Your task to perform on an android device: find photos in the google photos app Image 0: 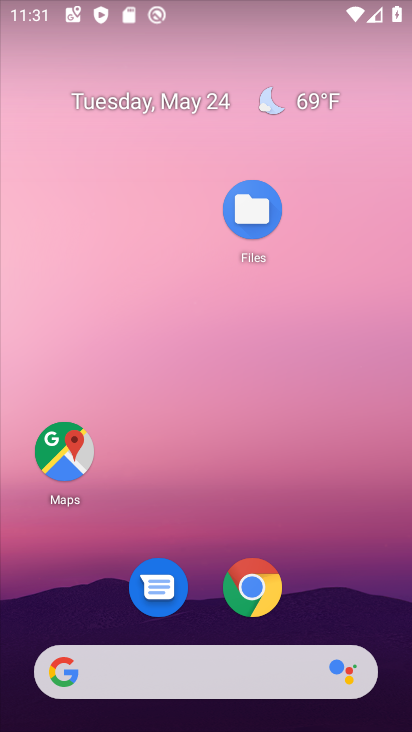
Step 0: drag from (322, 586) to (111, 85)
Your task to perform on an android device: find photos in the google photos app Image 1: 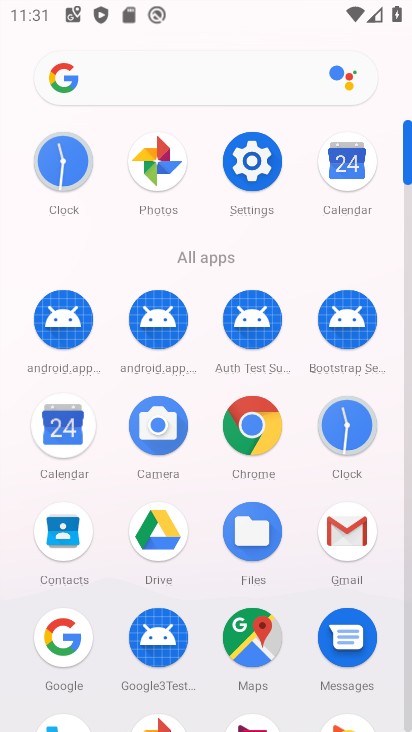
Step 1: click (165, 168)
Your task to perform on an android device: find photos in the google photos app Image 2: 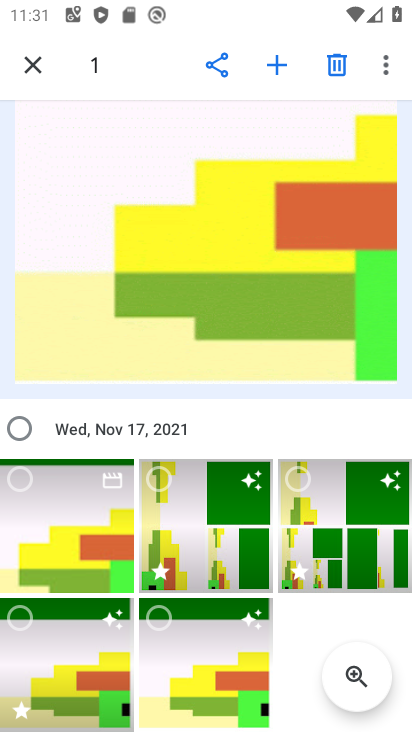
Step 2: drag from (165, 168) to (163, 437)
Your task to perform on an android device: find photos in the google photos app Image 3: 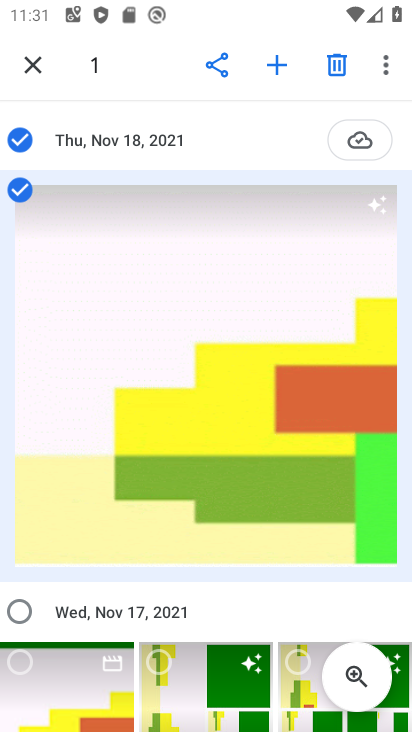
Step 3: click (23, 137)
Your task to perform on an android device: find photos in the google photos app Image 4: 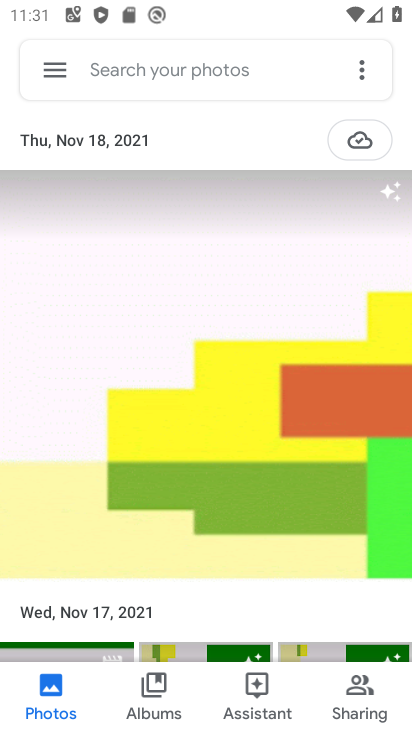
Step 4: task complete